Your task to perform on an android device: open chrome and create a bookmark for the current page Image 0: 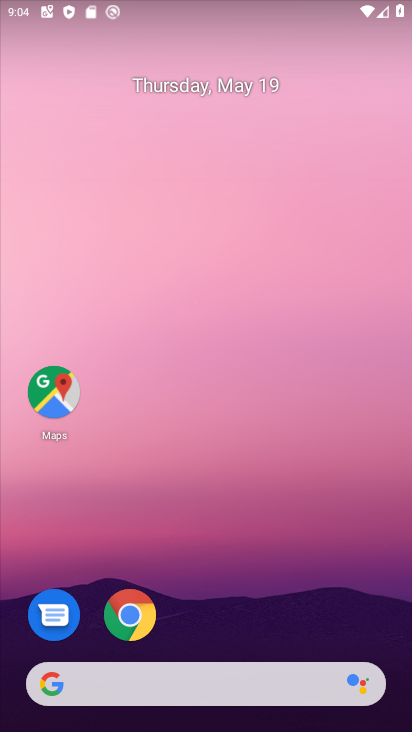
Step 0: press home button
Your task to perform on an android device: open chrome and create a bookmark for the current page Image 1: 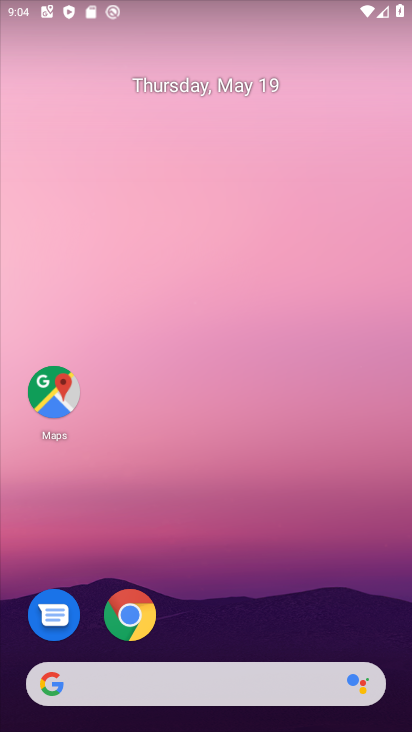
Step 1: click (122, 605)
Your task to perform on an android device: open chrome and create a bookmark for the current page Image 2: 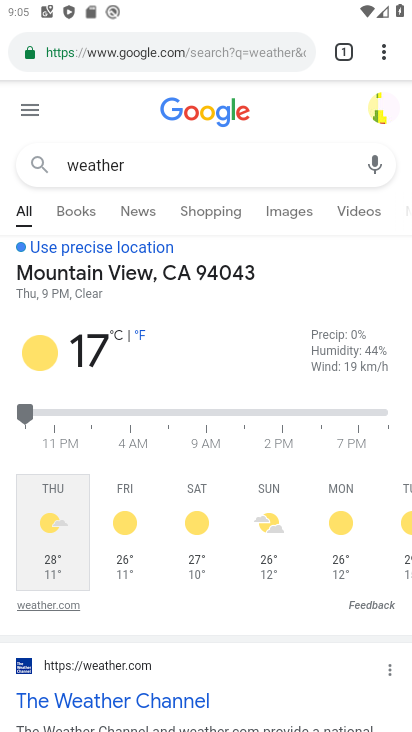
Step 2: task complete